Your task to perform on an android device: What's on my calendar tomorrow? Image 0: 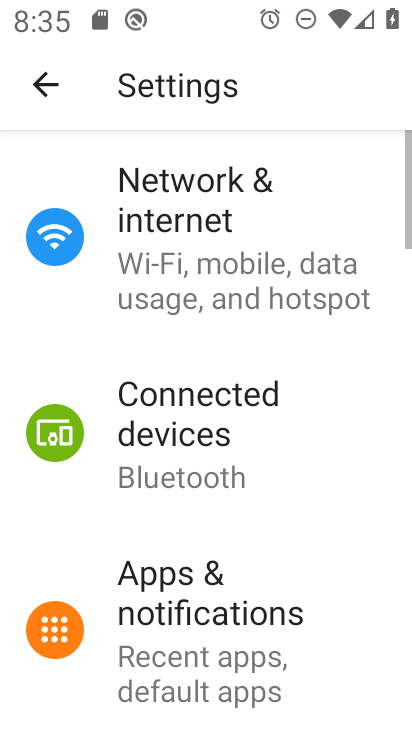
Step 0: press home button
Your task to perform on an android device: What's on my calendar tomorrow? Image 1: 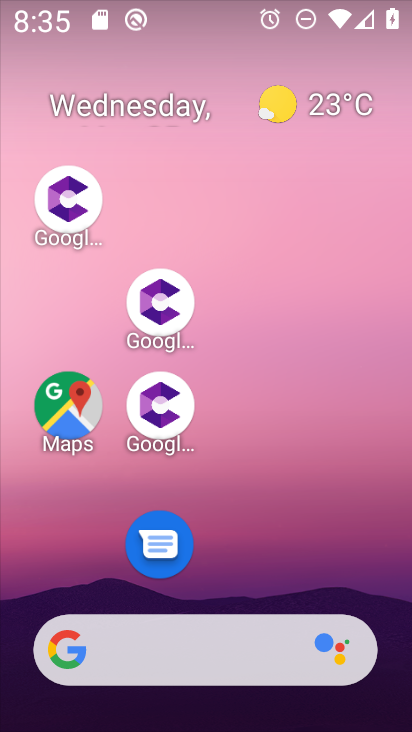
Step 1: drag from (322, 516) to (257, 29)
Your task to perform on an android device: What's on my calendar tomorrow? Image 2: 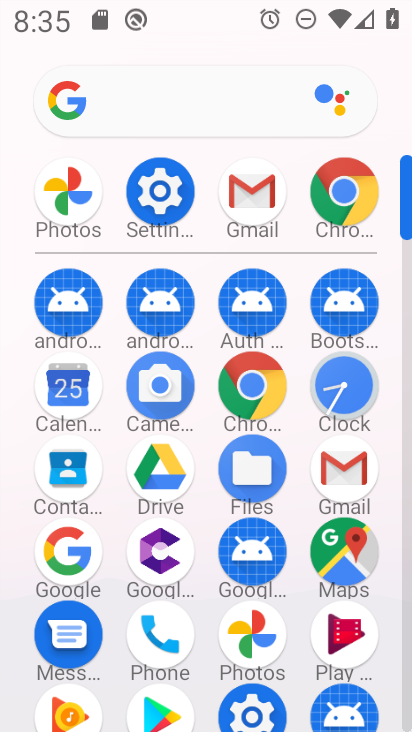
Step 2: click (65, 404)
Your task to perform on an android device: What's on my calendar tomorrow? Image 3: 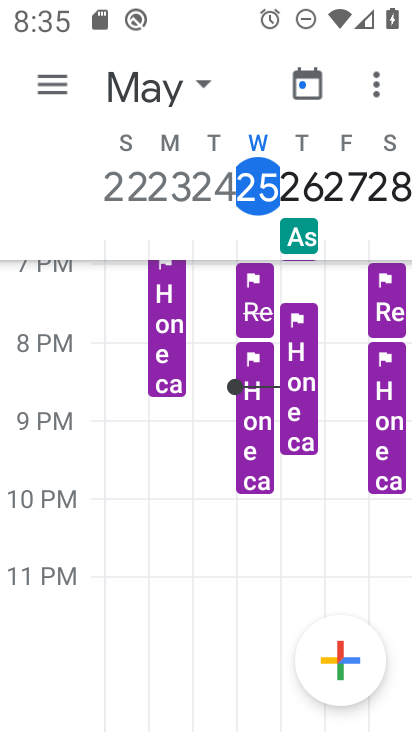
Step 3: click (301, 185)
Your task to perform on an android device: What's on my calendar tomorrow? Image 4: 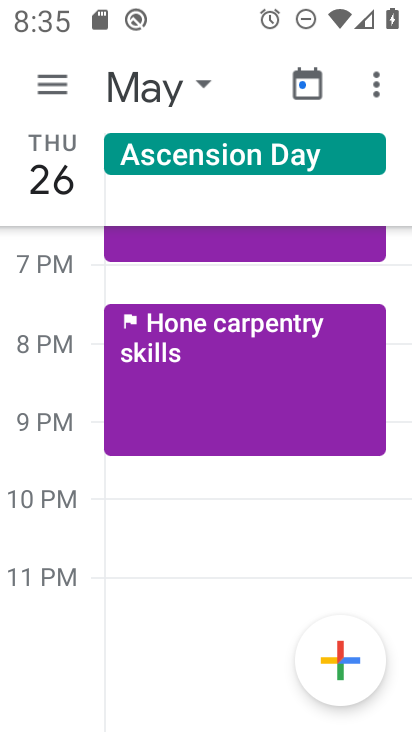
Step 4: task complete